Your task to perform on an android device: Clear the shopping cart on amazon. Add "usb-b" to the cart on amazon, then select checkout. Image 0: 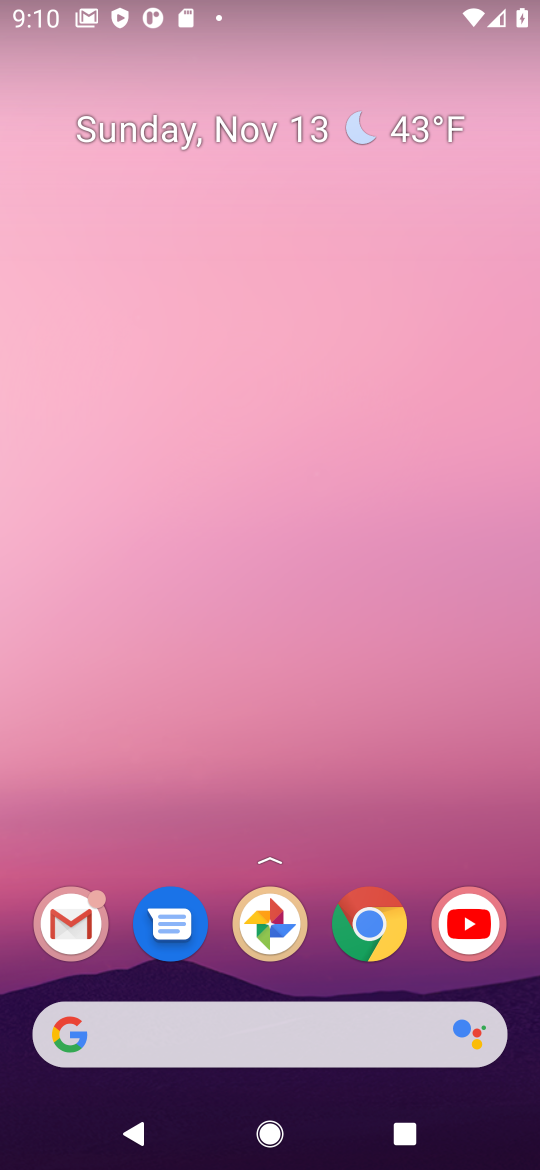
Step 0: click (355, 913)
Your task to perform on an android device: Clear the shopping cart on amazon. Add "usb-b" to the cart on amazon, then select checkout. Image 1: 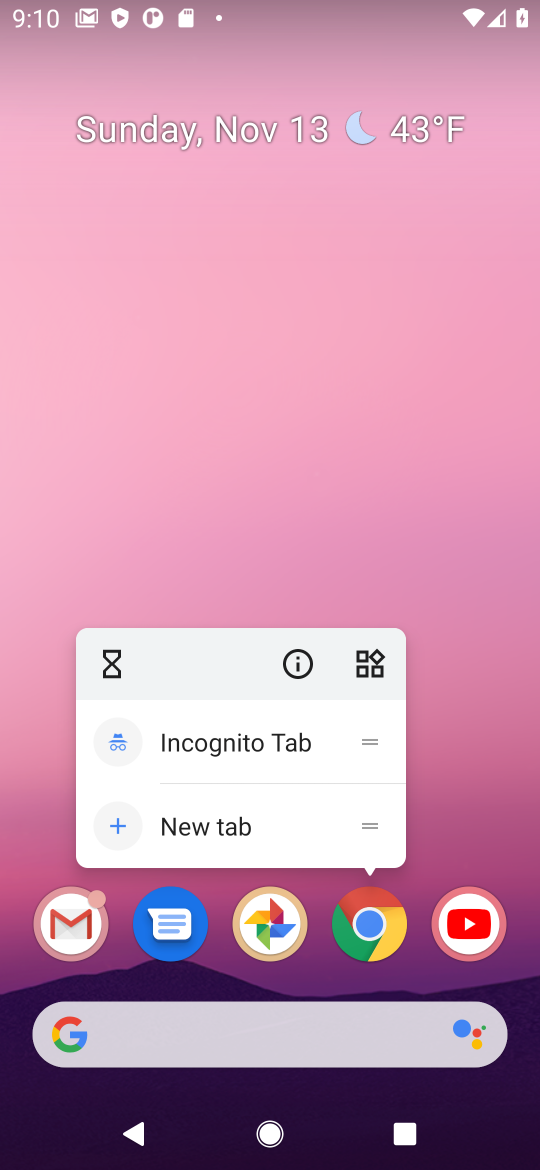
Step 1: click (365, 920)
Your task to perform on an android device: Clear the shopping cart on amazon. Add "usb-b" to the cart on amazon, then select checkout. Image 2: 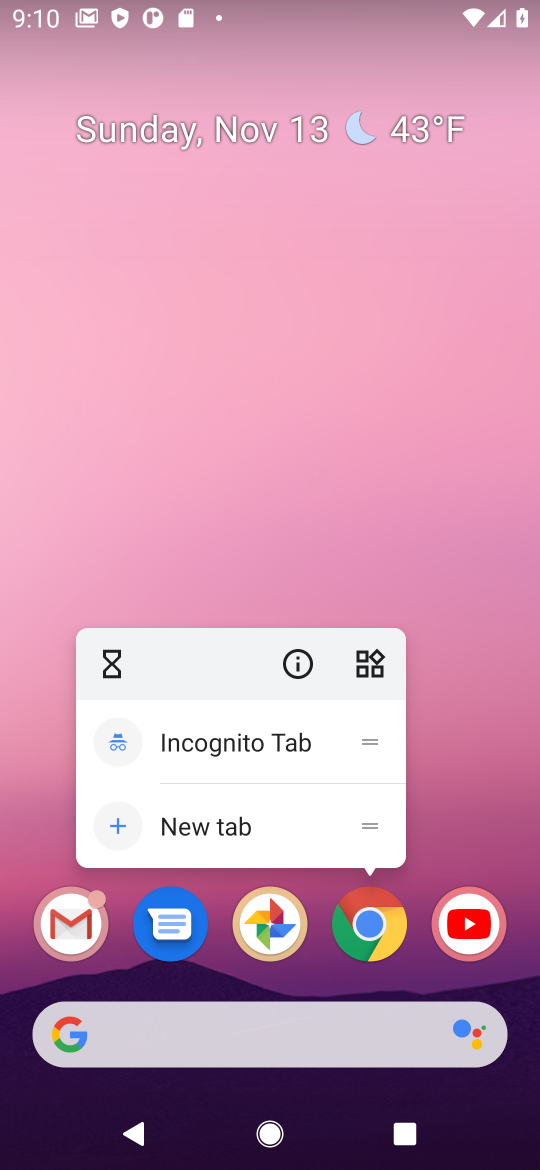
Step 2: click (364, 923)
Your task to perform on an android device: Clear the shopping cart on amazon. Add "usb-b" to the cart on amazon, then select checkout. Image 3: 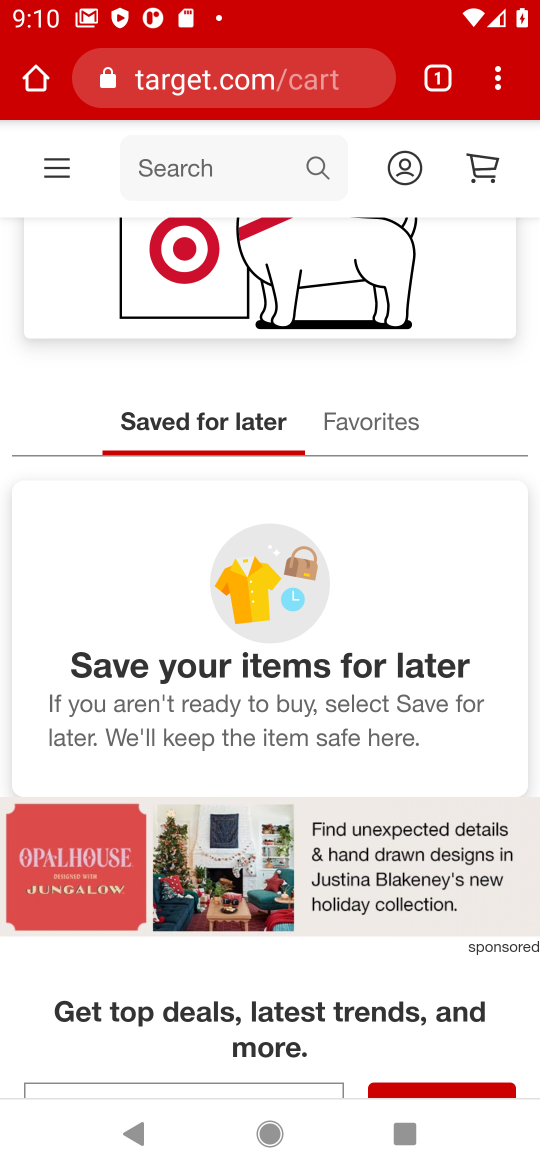
Step 3: click (285, 79)
Your task to perform on an android device: Clear the shopping cart on amazon. Add "usb-b" to the cart on amazon, then select checkout. Image 4: 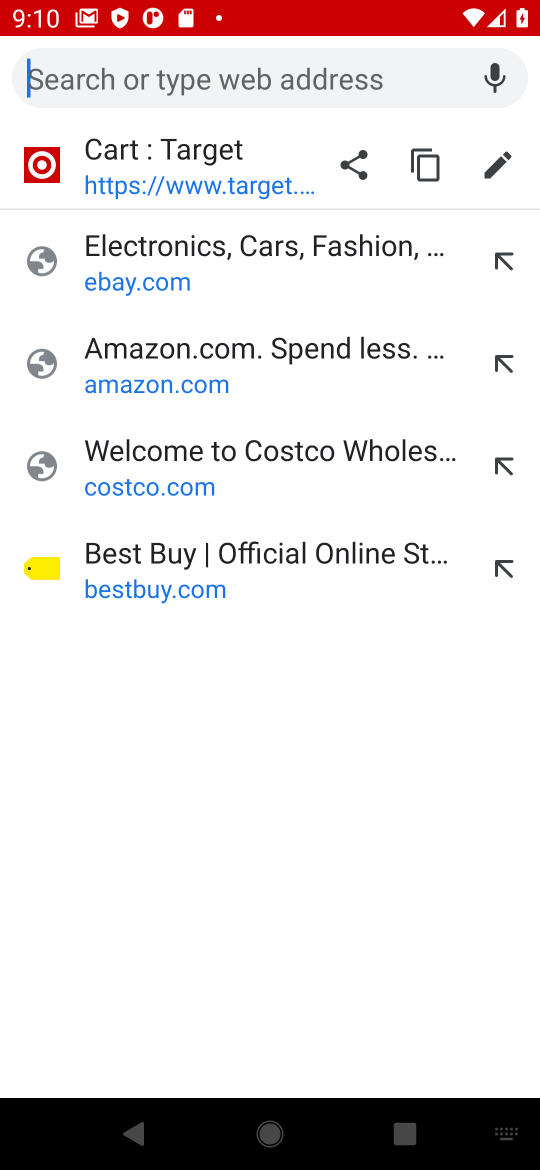
Step 4: click (154, 383)
Your task to perform on an android device: Clear the shopping cart on amazon. Add "usb-b" to the cart on amazon, then select checkout. Image 5: 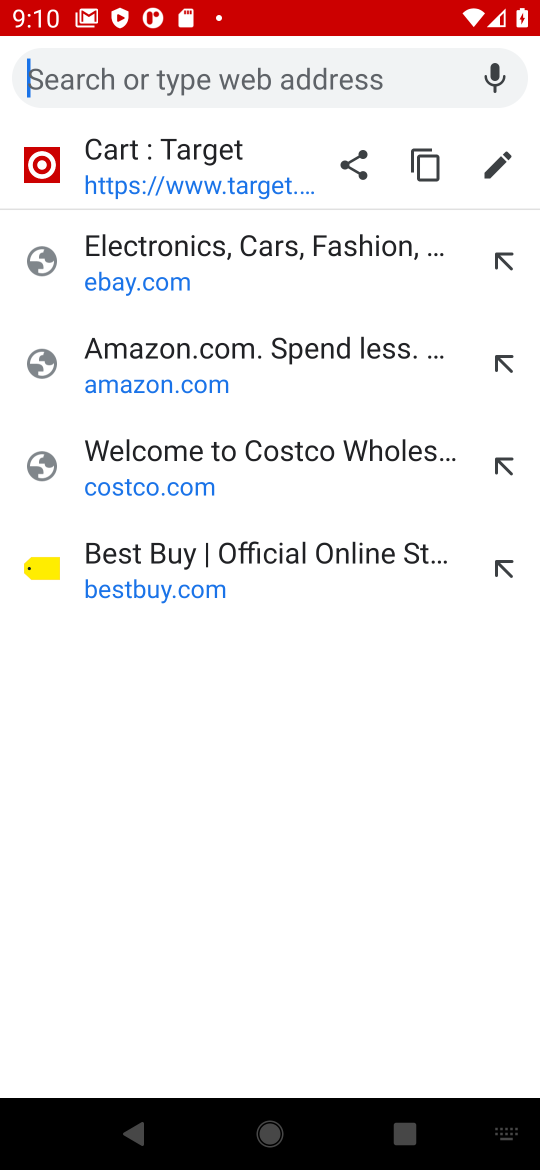
Step 5: click (160, 376)
Your task to perform on an android device: Clear the shopping cart on amazon. Add "usb-b" to the cart on amazon, then select checkout. Image 6: 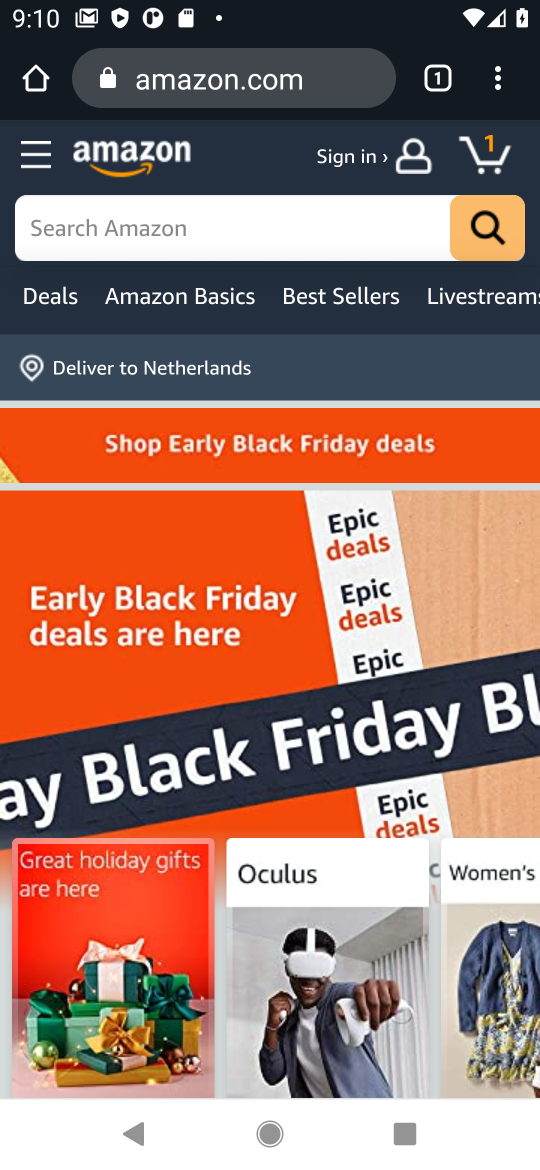
Step 6: click (71, 223)
Your task to perform on an android device: Clear the shopping cart on amazon. Add "usb-b" to the cart on amazon, then select checkout. Image 7: 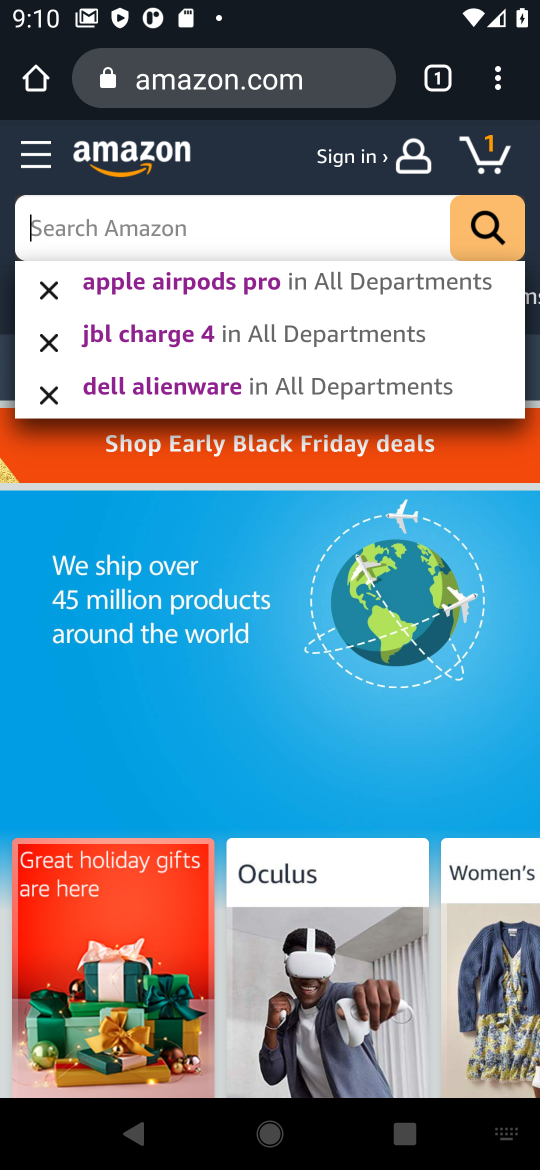
Step 7: type "usb-b"
Your task to perform on an android device: Clear the shopping cart on amazon. Add "usb-b" to the cart on amazon, then select checkout. Image 8: 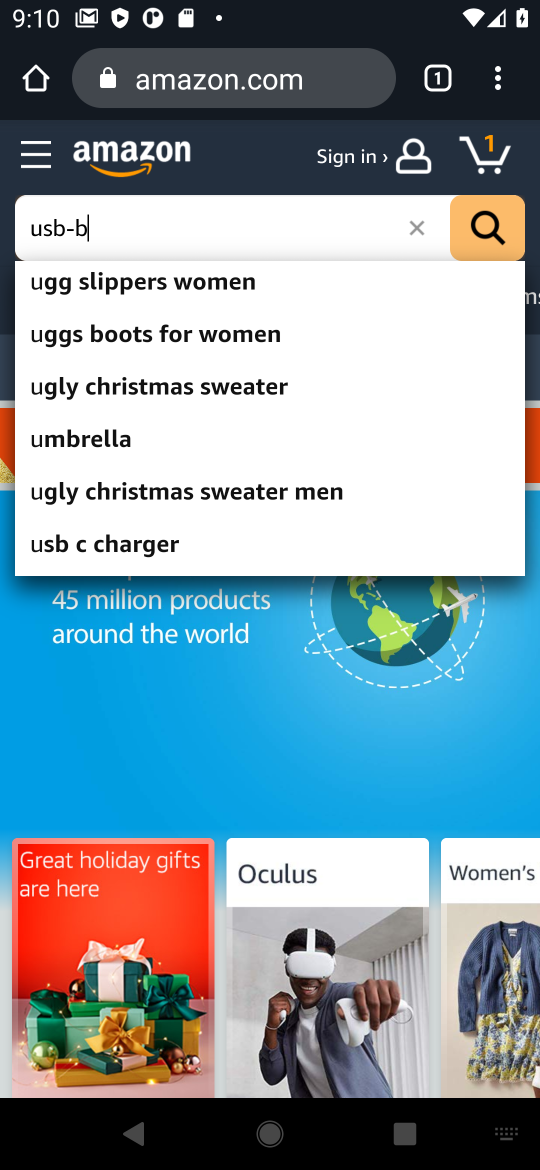
Step 8: press enter
Your task to perform on an android device: Clear the shopping cart on amazon. Add "usb-b" to the cart on amazon, then select checkout. Image 9: 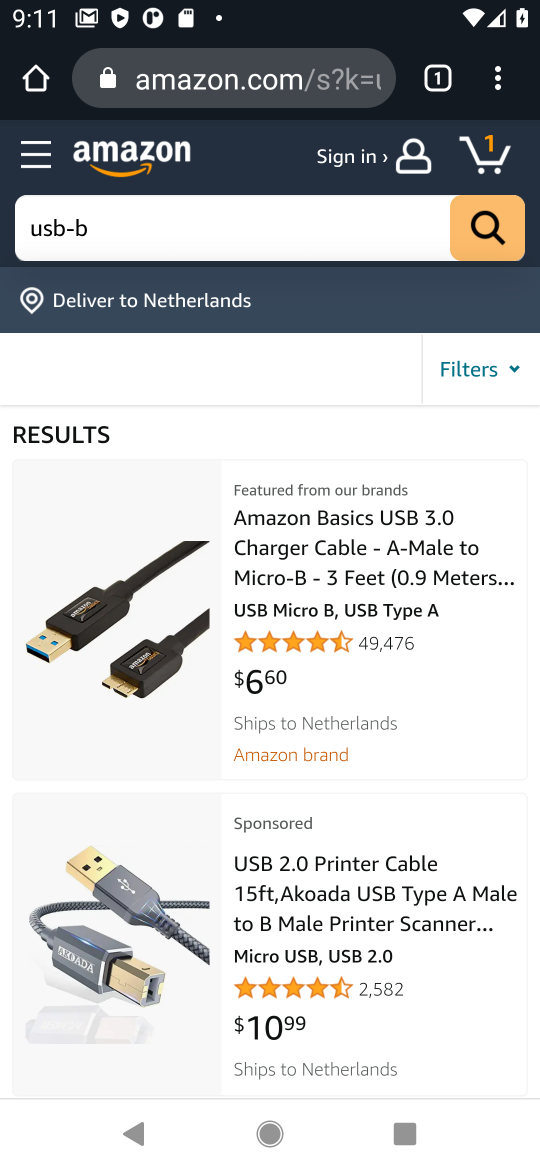
Step 9: task complete